Your task to perform on an android device: Open display settings Image 0: 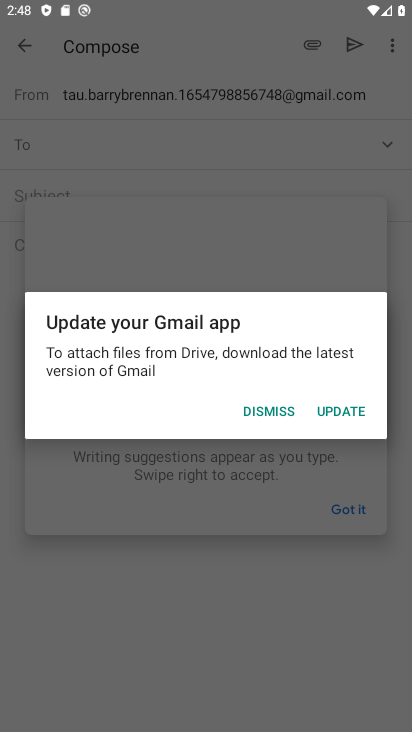
Step 0: click (359, 513)
Your task to perform on an android device: Open display settings Image 1: 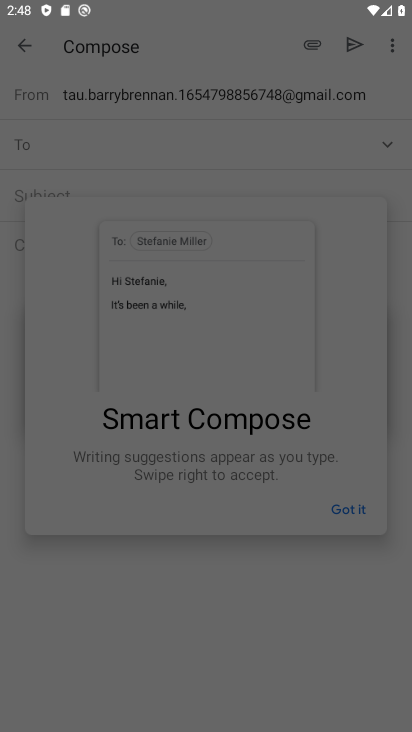
Step 1: click (269, 407)
Your task to perform on an android device: Open display settings Image 2: 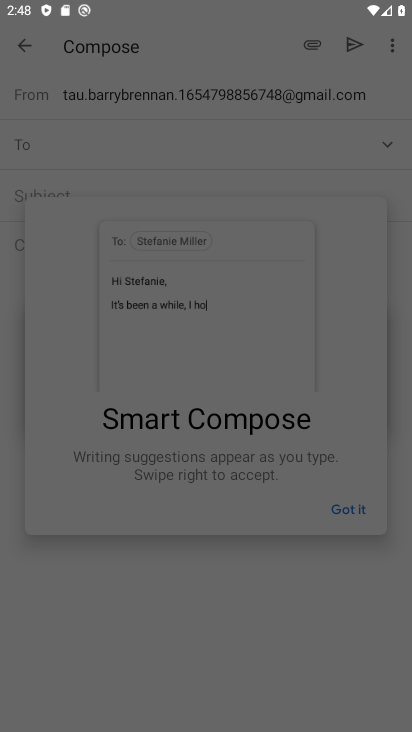
Step 2: click (268, 406)
Your task to perform on an android device: Open display settings Image 3: 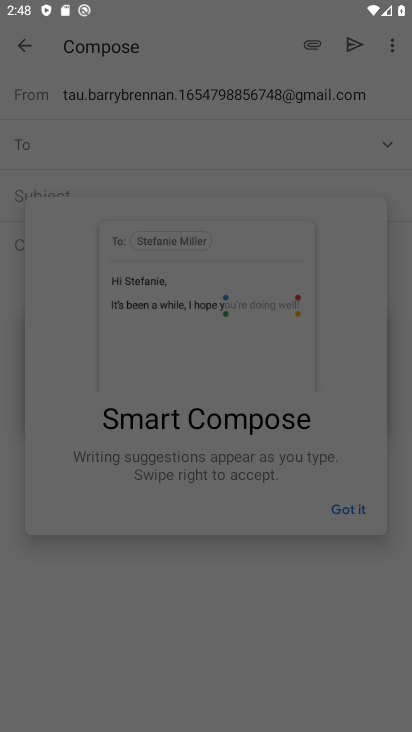
Step 3: click (353, 514)
Your task to perform on an android device: Open display settings Image 4: 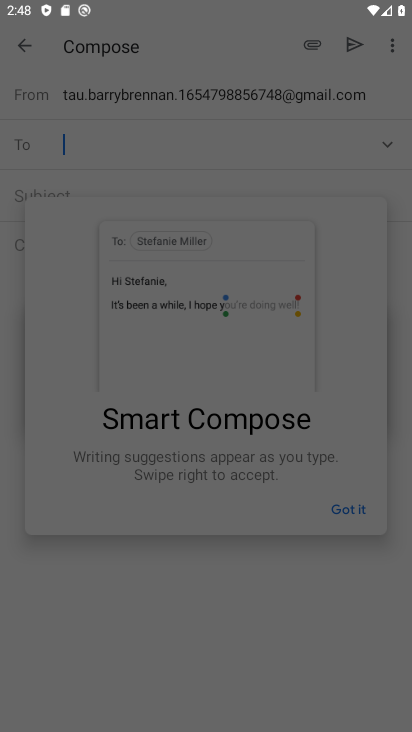
Step 4: click (349, 511)
Your task to perform on an android device: Open display settings Image 5: 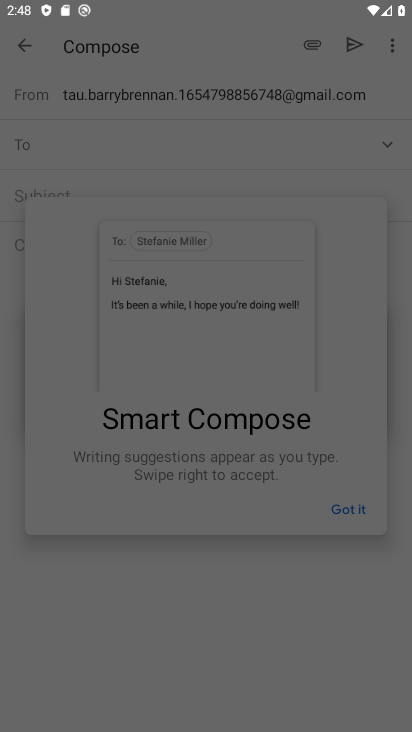
Step 5: press back button
Your task to perform on an android device: Open display settings Image 6: 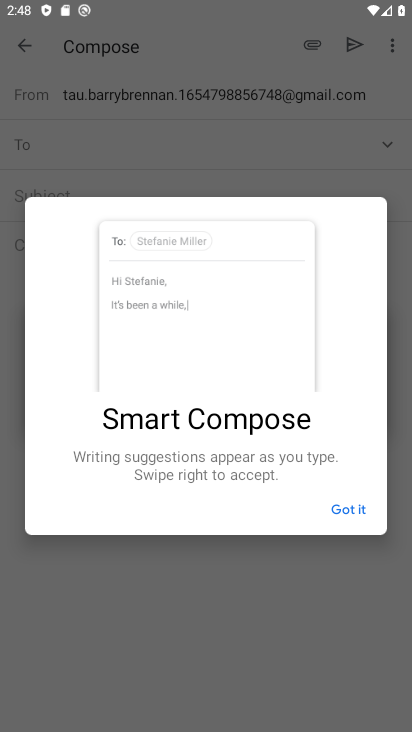
Step 6: click (350, 508)
Your task to perform on an android device: Open display settings Image 7: 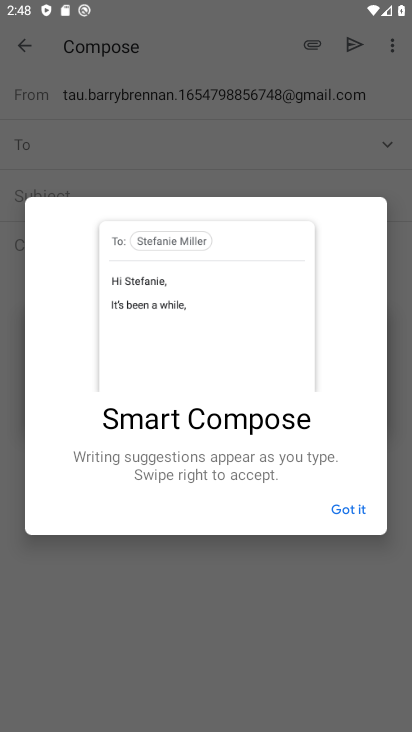
Step 7: click (350, 508)
Your task to perform on an android device: Open display settings Image 8: 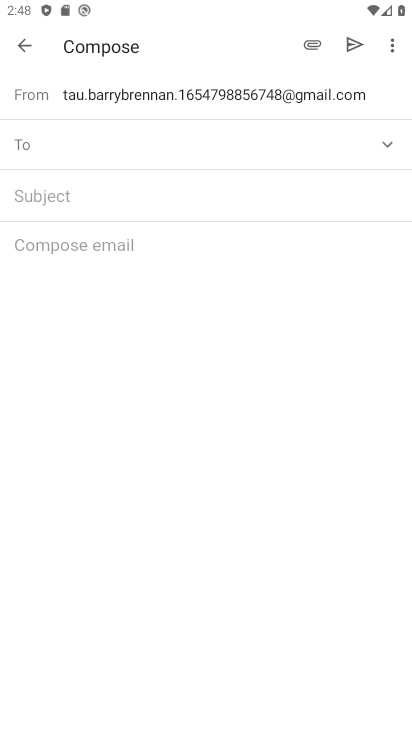
Step 8: click (22, 50)
Your task to perform on an android device: Open display settings Image 9: 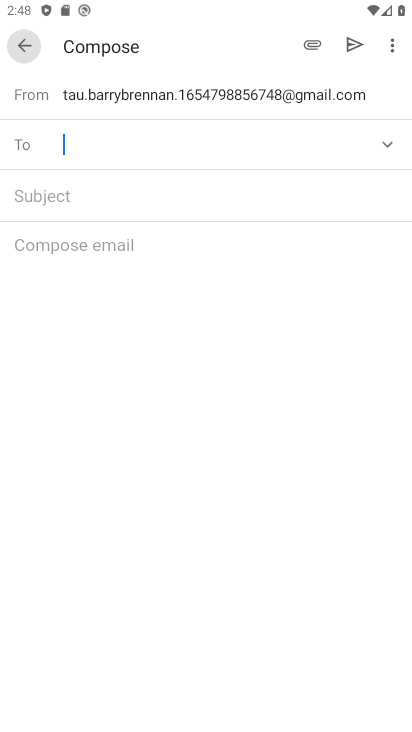
Step 9: click (22, 49)
Your task to perform on an android device: Open display settings Image 10: 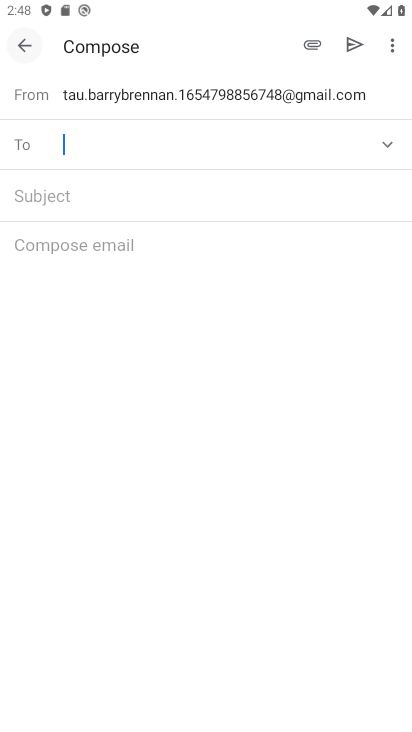
Step 10: click (22, 49)
Your task to perform on an android device: Open display settings Image 11: 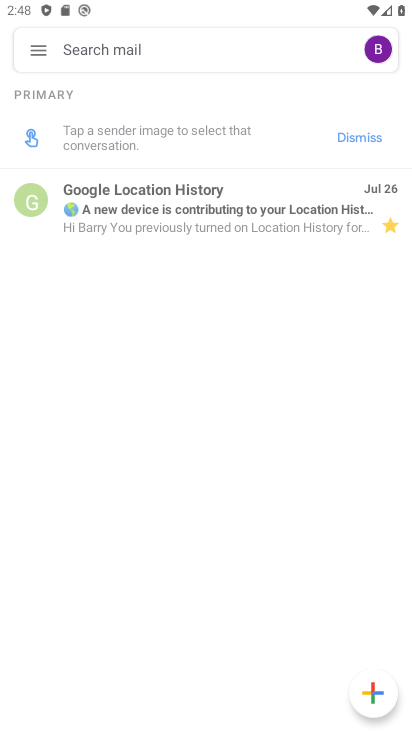
Step 11: drag from (191, 612) to (113, 169)
Your task to perform on an android device: Open display settings Image 12: 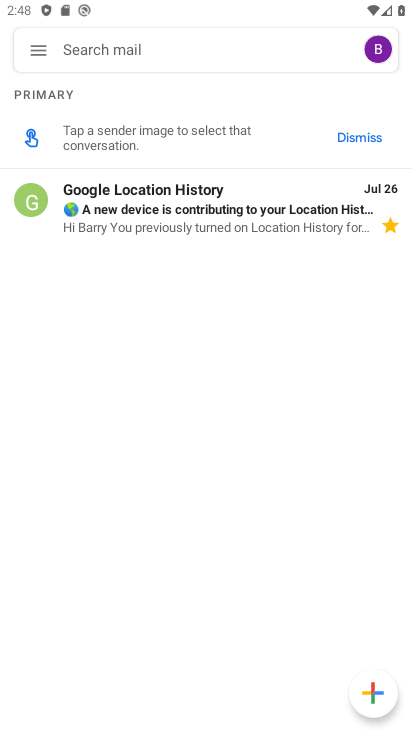
Step 12: drag from (304, 622) to (201, 296)
Your task to perform on an android device: Open display settings Image 13: 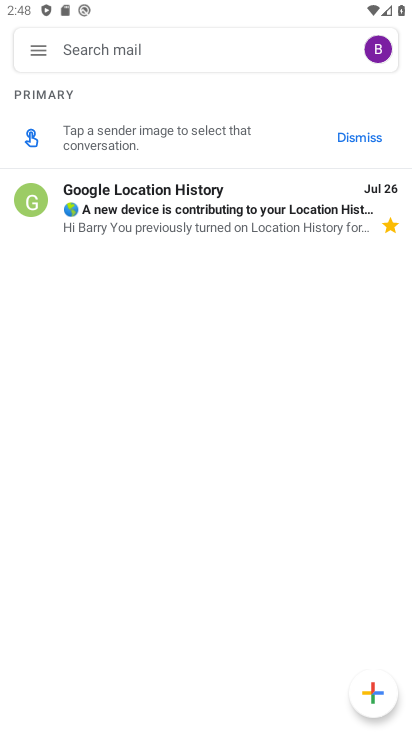
Step 13: press back button
Your task to perform on an android device: Open display settings Image 14: 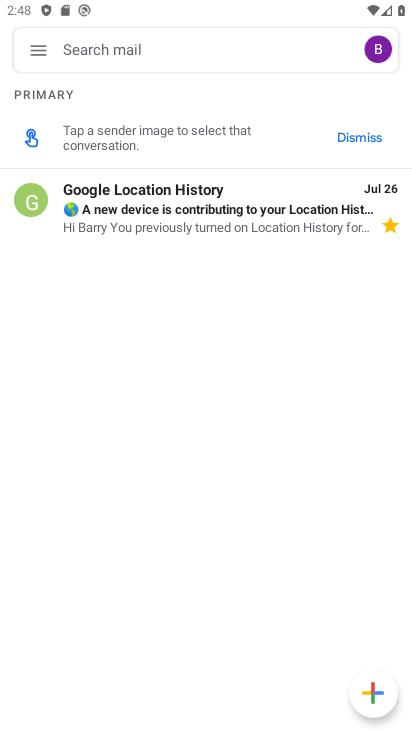
Step 14: press back button
Your task to perform on an android device: Open display settings Image 15: 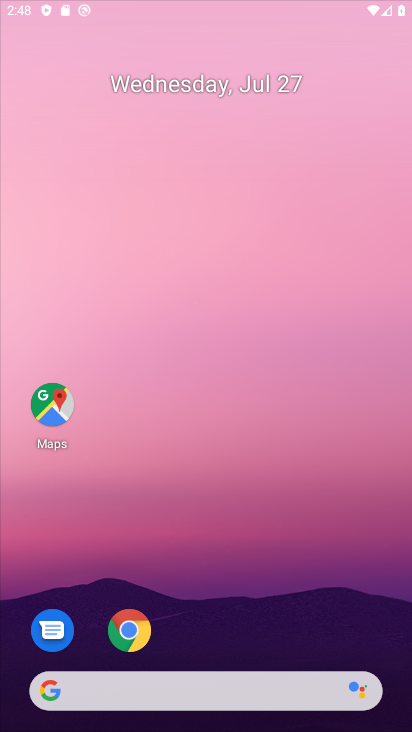
Step 15: press back button
Your task to perform on an android device: Open display settings Image 16: 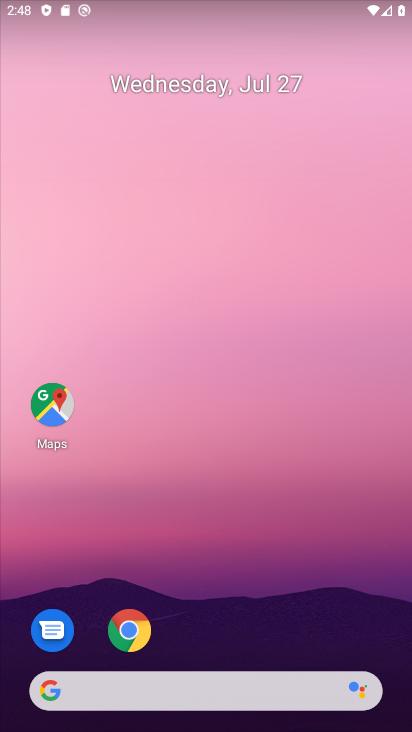
Step 16: drag from (243, 445) to (233, 132)
Your task to perform on an android device: Open display settings Image 17: 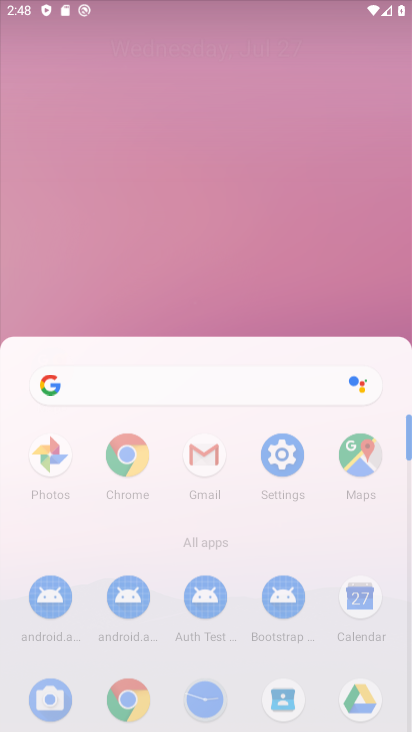
Step 17: drag from (261, 660) to (160, 334)
Your task to perform on an android device: Open display settings Image 18: 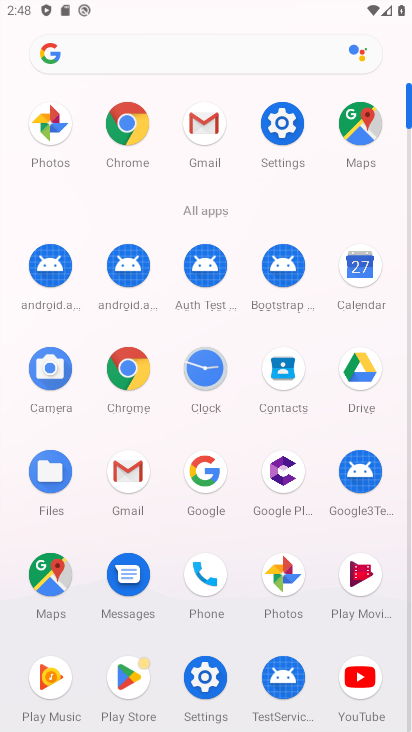
Step 18: click (199, 682)
Your task to perform on an android device: Open display settings Image 19: 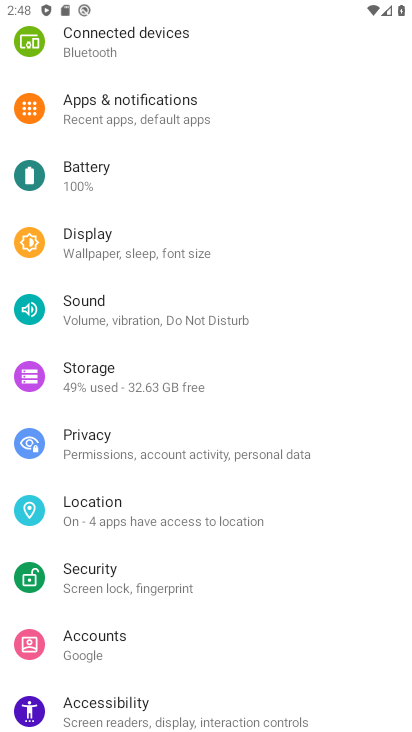
Step 19: click (64, 230)
Your task to perform on an android device: Open display settings Image 20: 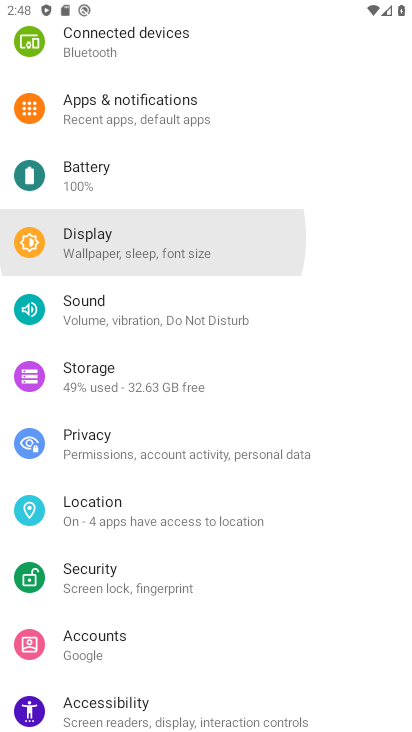
Step 20: click (70, 239)
Your task to perform on an android device: Open display settings Image 21: 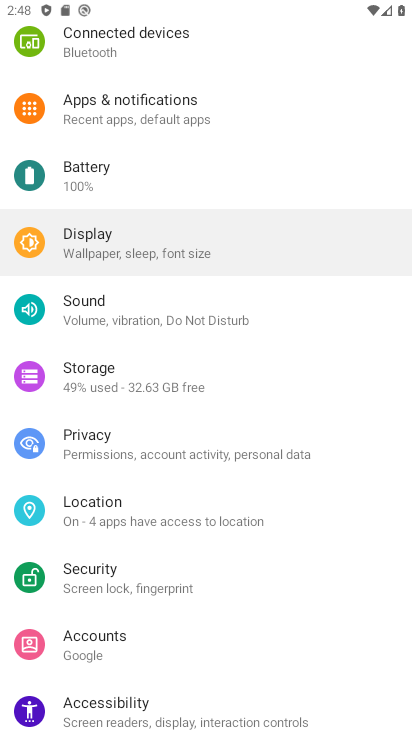
Step 21: click (71, 238)
Your task to perform on an android device: Open display settings Image 22: 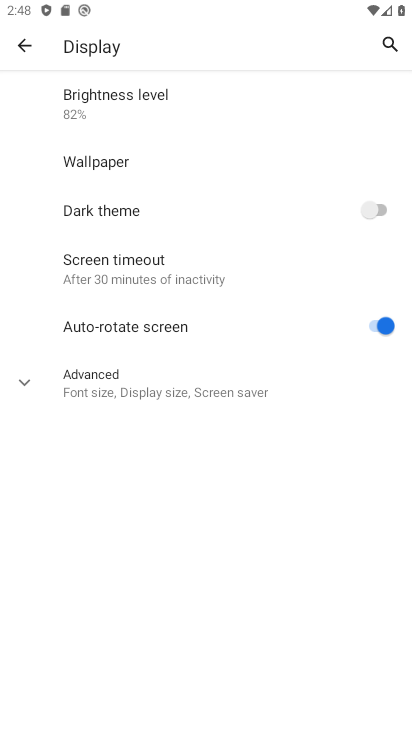
Step 22: task complete